Your task to perform on an android device: Open Google Maps Image 0: 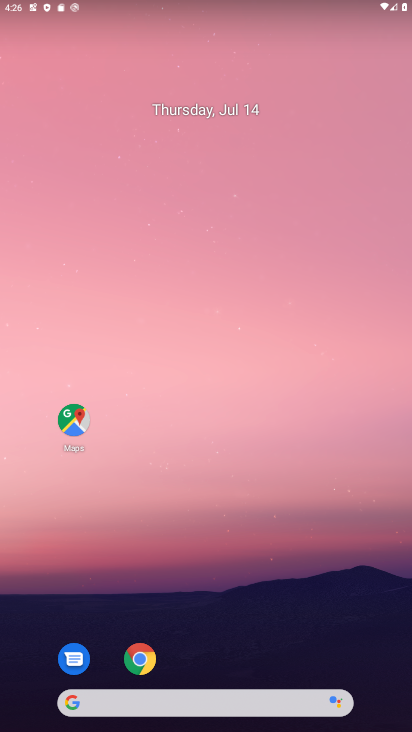
Step 0: press home button
Your task to perform on an android device: Open Google Maps Image 1: 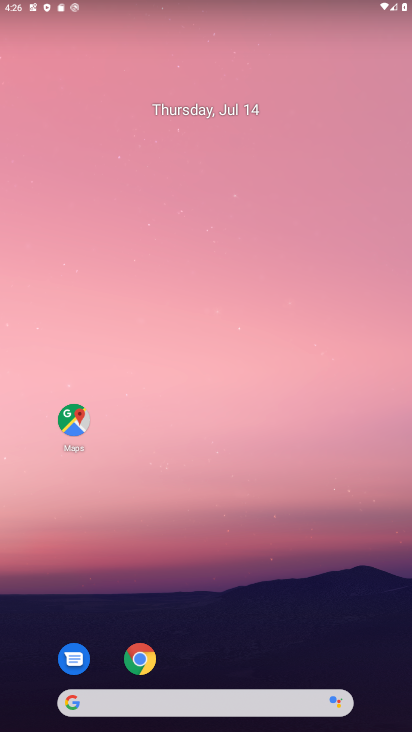
Step 1: drag from (217, 660) to (245, 29)
Your task to perform on an android device: Open Google Maps Image 2: 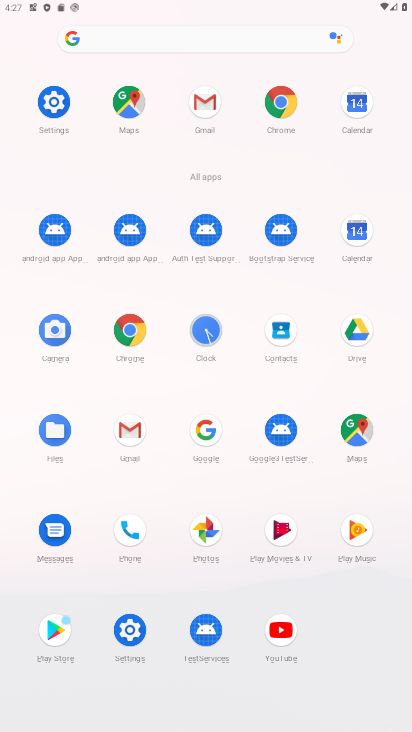
Step 2: click (357, 427)
Your task to perform on an android device: Open Google Maps Image 3: 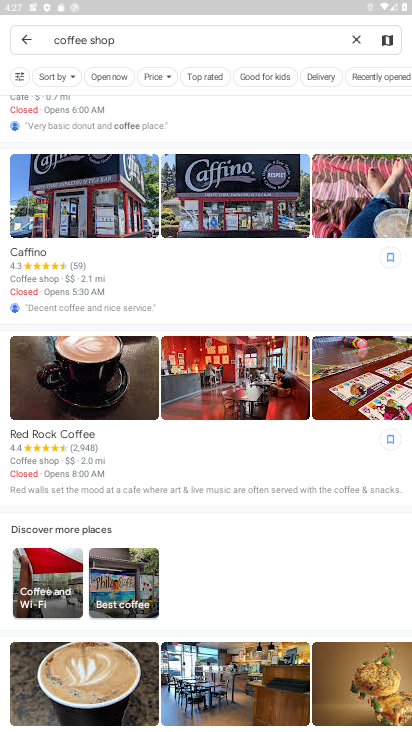
Step 3: click (22, 39)
Your task to perform on an android device: Open Google Maps Image 4: 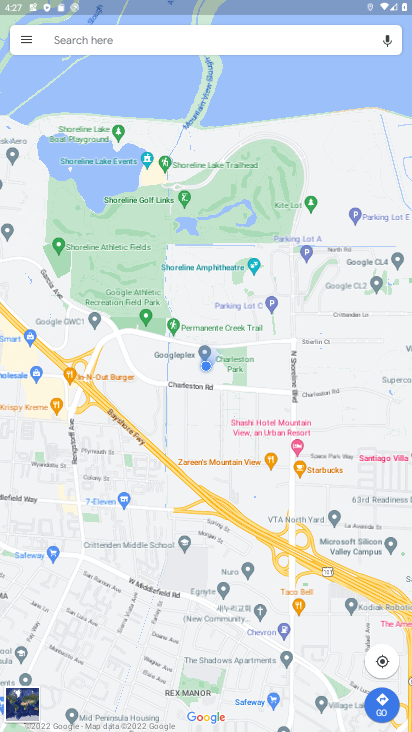
Step 4: task complete